Your task to perform on an android device: What's on my calendar tomorrow? Image 0: 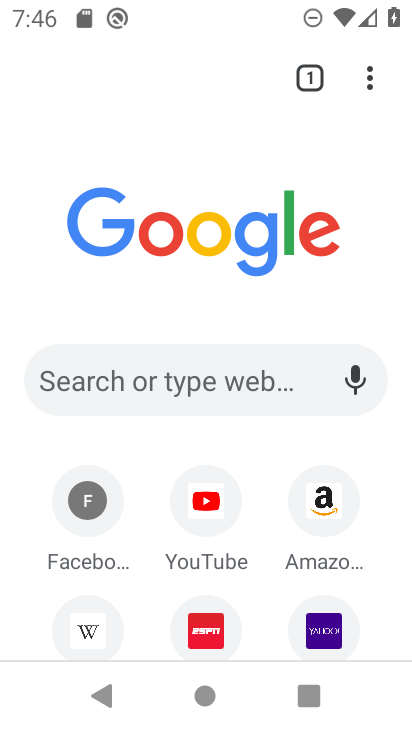
Step 0: press home button
Your task to perform on an android device: What's on my calendar tomorrow? Image 1: 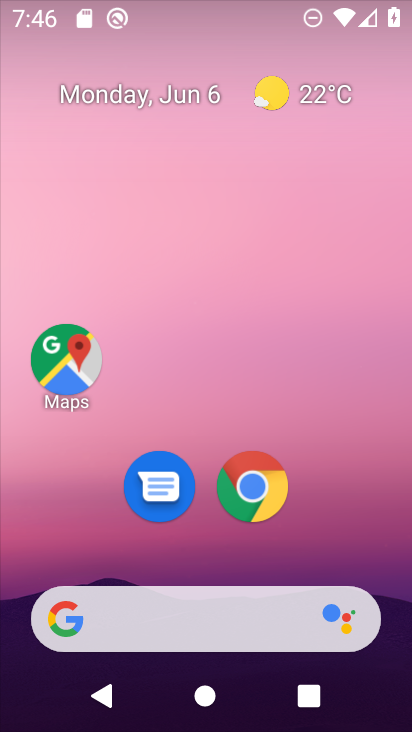
Step 1: drag from (399, 629) to (292, 12)
Your task to perform on an android device: What's on my calendar tomorrow? Image 2: 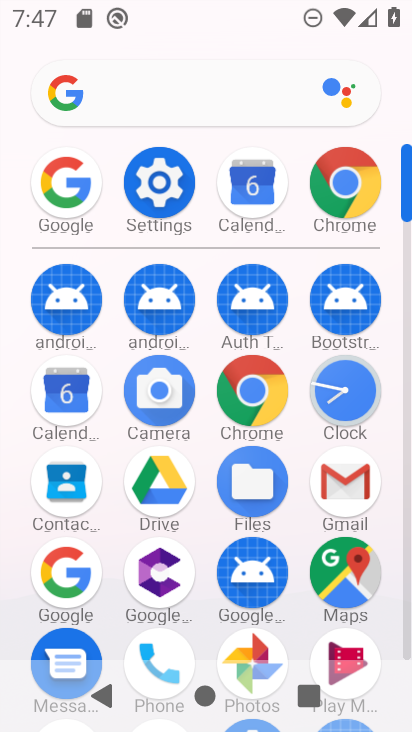
Step 2: click (65, 381)
Your task to perform on an android device: What's on my calendar tomorrow? Image 3: 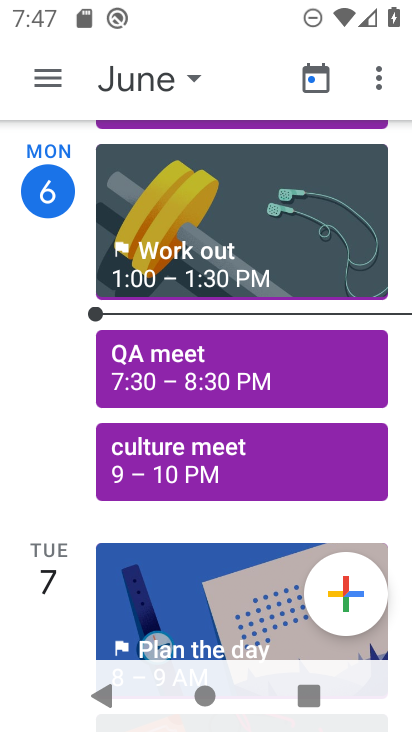
Step 3: click (155, 84)
Your task to perform on an android device: What's on my calendar tomorrow? Image 4: 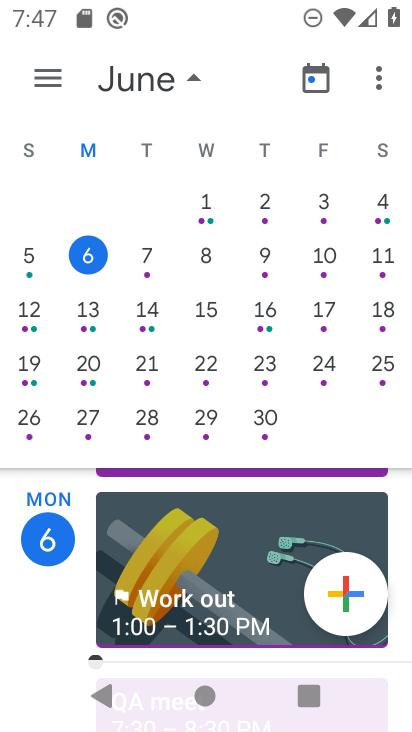
Step 4: click (200, 255)
Your task to perform on an android device: What's on my calendar tomorrow? Image 5: 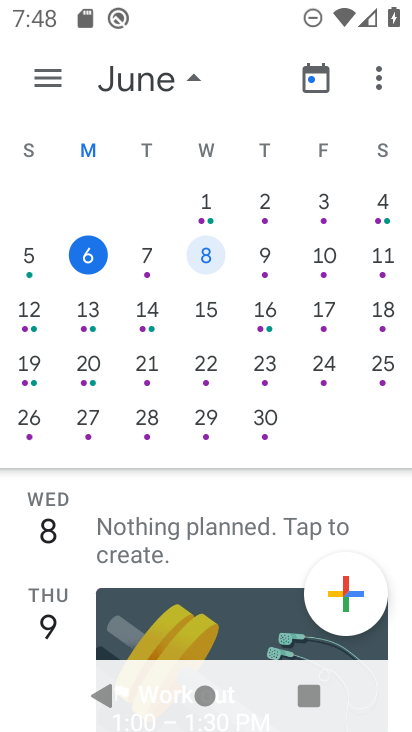
Step 5: task complete